Your task to perform on an android device: turn pop-ups off in chrome Image 0: 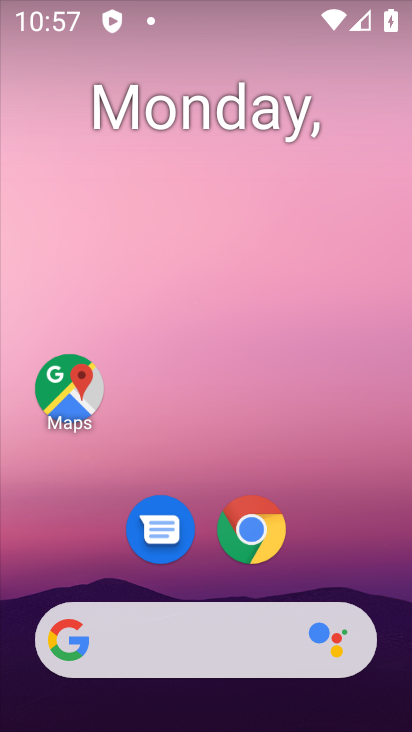
Step 0: click (72, 640)
Your task to perform on an android device: turn pop-ups off in chrome Image 1: 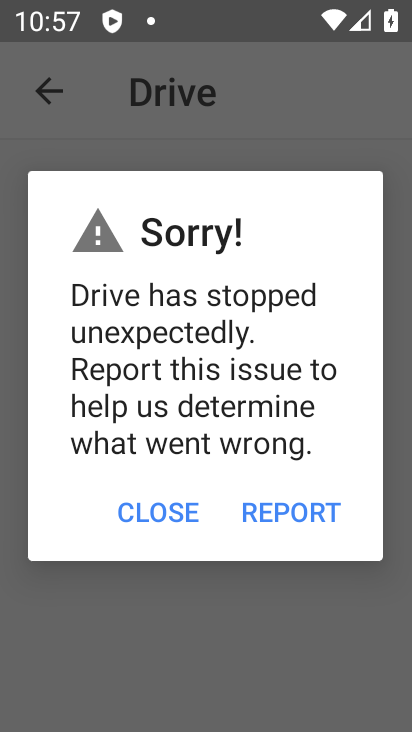
Step 1: click (172, 518)
Your task to perform on an android device: turn pop-ups off in chrome Image 2: 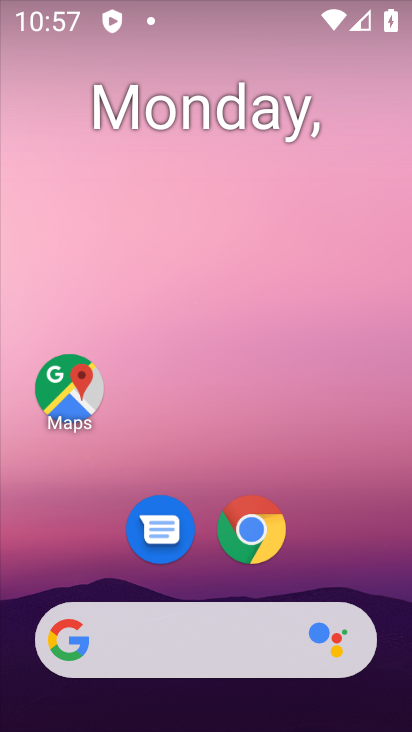
Step 2: click (78, 639)
Your task to perform on an android device: turn pop-ups off in chrome Image 3: 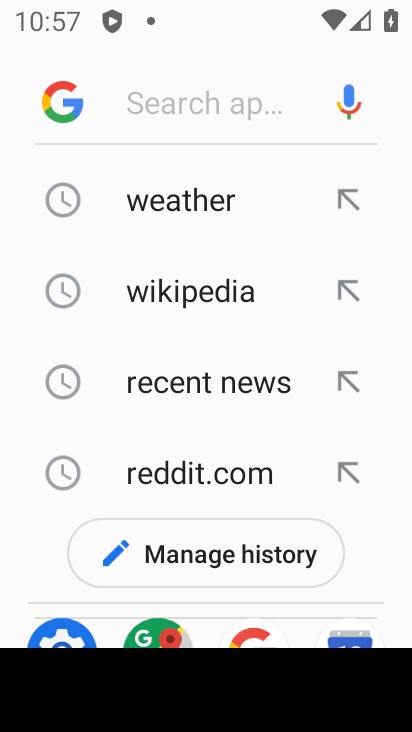
Step 3: click (64, 112)
Your task to perform on an android device: turn pop-ups off in chrome Image 4: 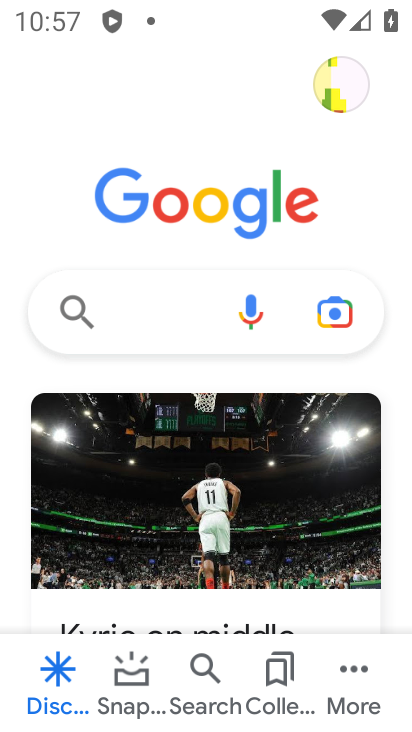
Step 4: click (53, 72)
Your task to perform on an android device: turn pop-ups off in chrome Image 5: 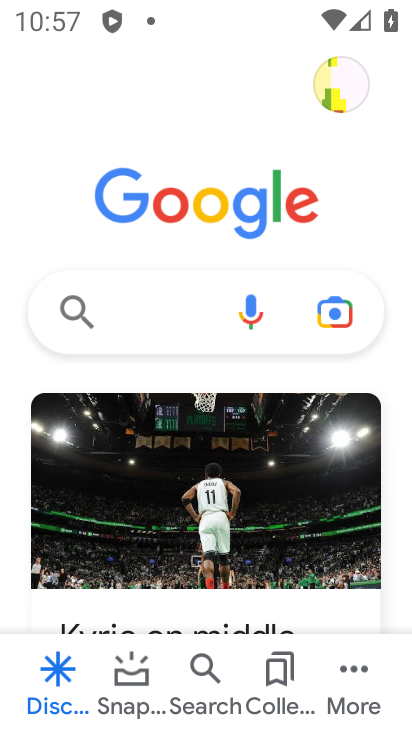
Step 5: click (145, 305)
Your task to perform on an android device: turn pop-ups off in chrome Image 6: 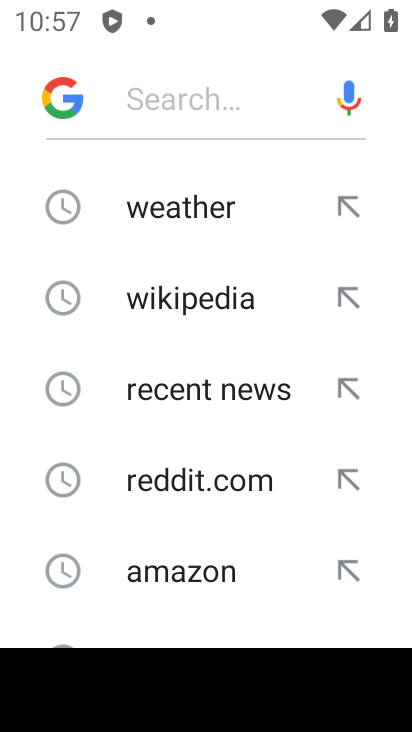
Step 6: press back button
Your task to perform on an android device: turn pop-ups off in chrome Image 7: 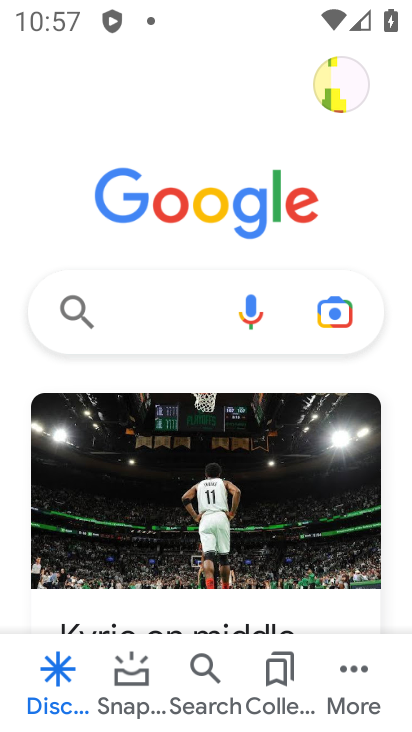
Step 7: drag from (342, 90) to (329, 177)
Your task to perform on an android device: turn pop-ups off in chrome Image 8: 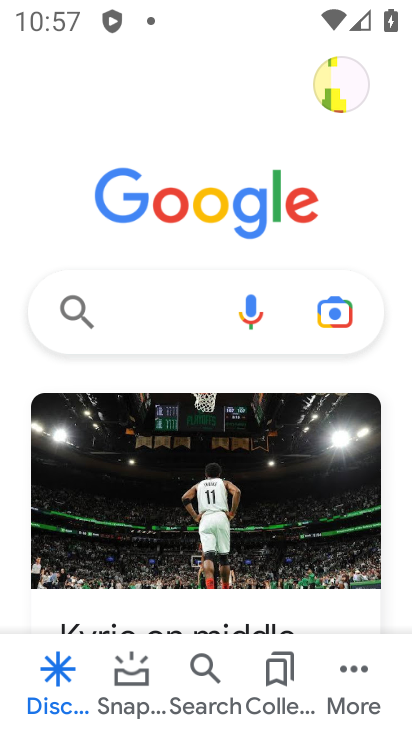
Step 8: click (346, 87)
Your task to perform on an android device: turn pop-ups off in chrome Image 9: 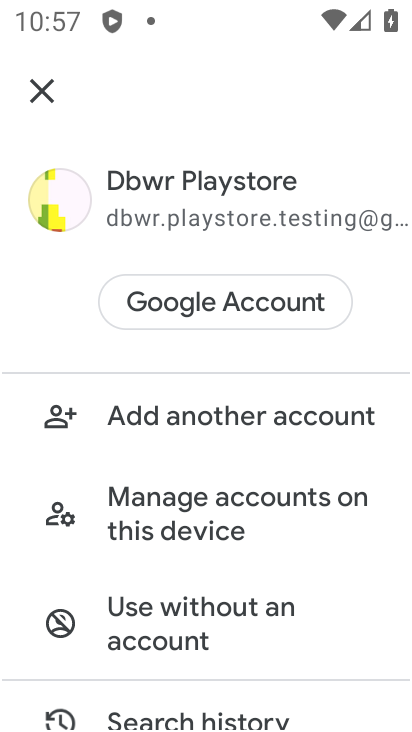
Step 9: click (46, 85)
Your task to perform on an android device: turn pop-ups off in chrome Image 10: 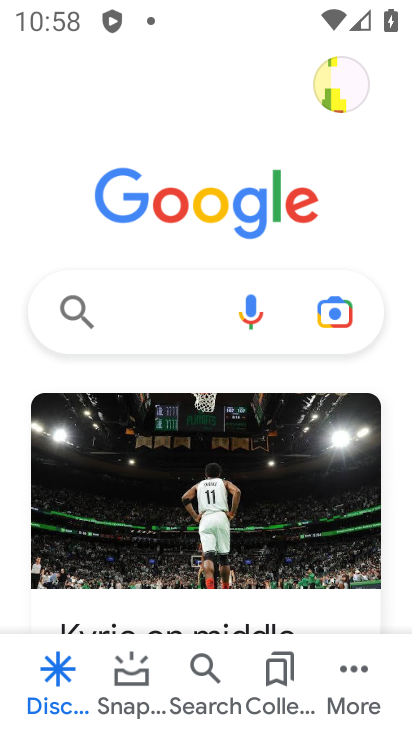
Step 10: press home button
Your task to perform on an android device: turn pop-ups off in chrome Image 11: 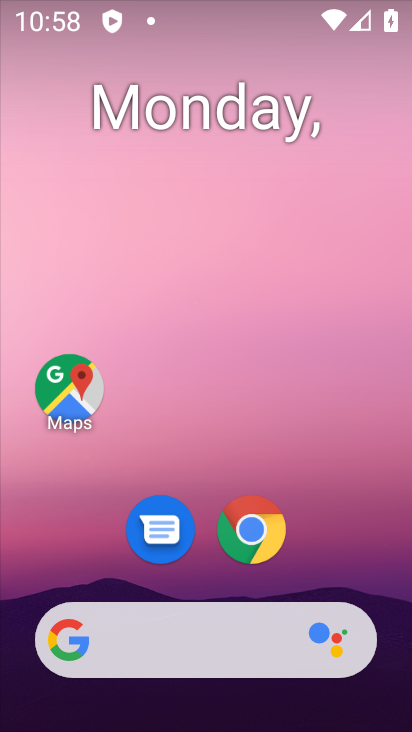
Step 11: click (246, 529)
Your task to perform on an android device: turn pop-ups off in chrome Image 12: 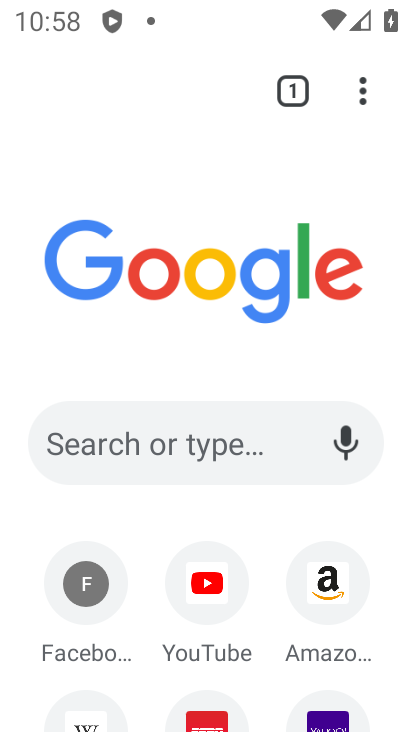
Step 12: drag from (359, 96) to (129, 562)
Your task to perform on an android device: turn pop-ups off in chrome Image 13: 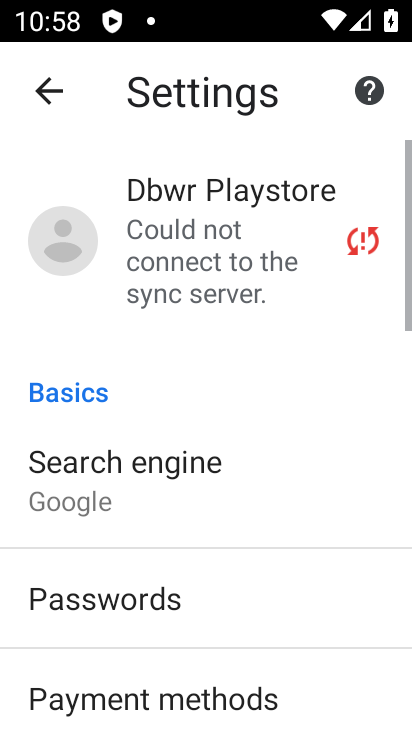
Step 13: drag from (177, 654) to (168, 328)
Your task to perform on an android device: turn pop-ups off in chrome Image 14: 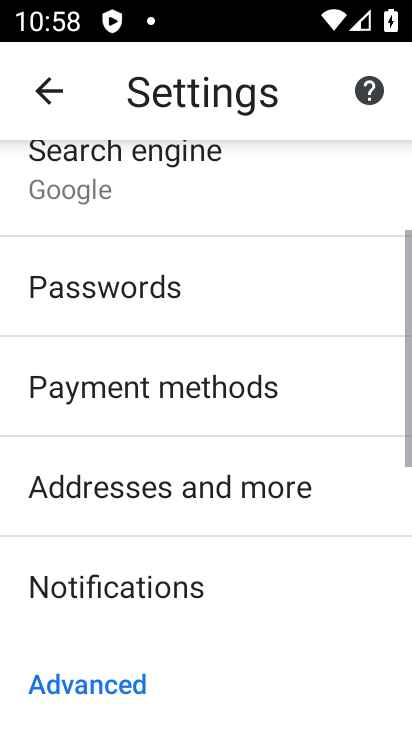
Step 14: drag from (143, 601) to (161, 269)
Your task to perform on an android device: turn pop-ups off in chrome Image 15: 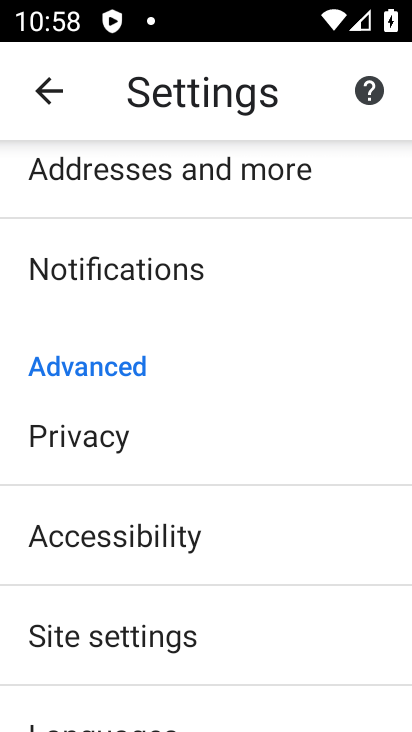
Step 15: drag from (166, 601) to (179, 362)
Your task to perform on an android device: turn pop-ups off in chrome Image 16: 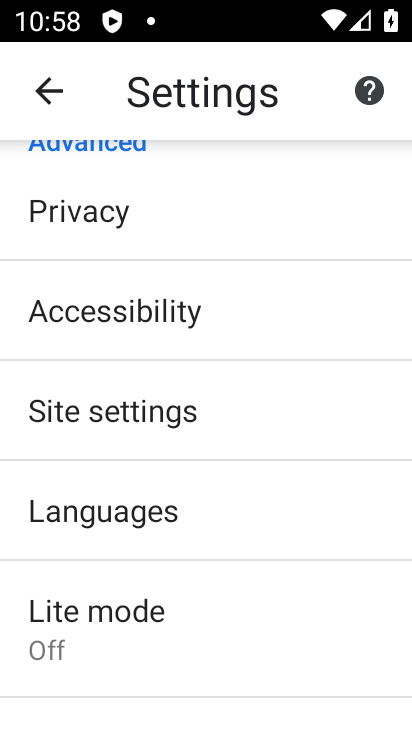
Step 16: click (132, 392)
Your task to perform on an android device: turn pop-ups off in chrome Image 17: 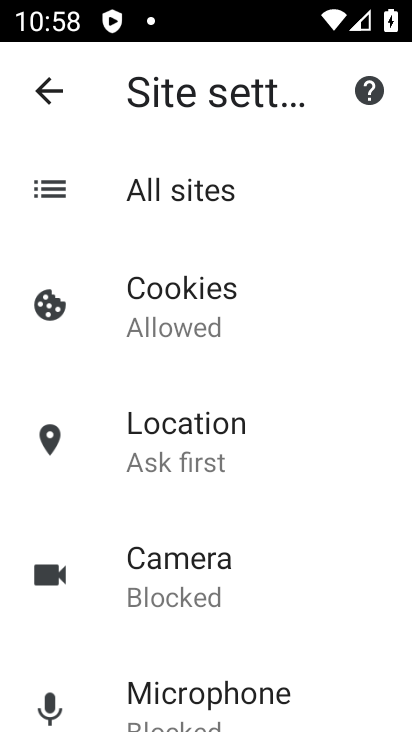
Step 17: drag from (218, 615) to (221, 328)
Your task to perform on an android device: turn pop-ups off in chrome Image 18: 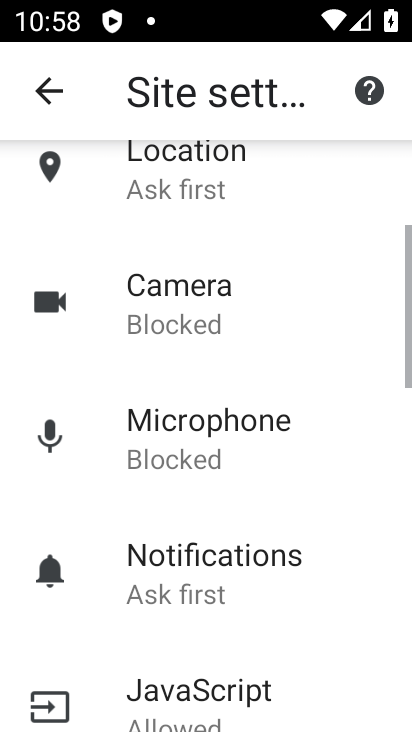
Step 18: drag from (217, 580) to (207, 361)
Your task to perform on an android device: turn pop-ups off in chrome Image 19: 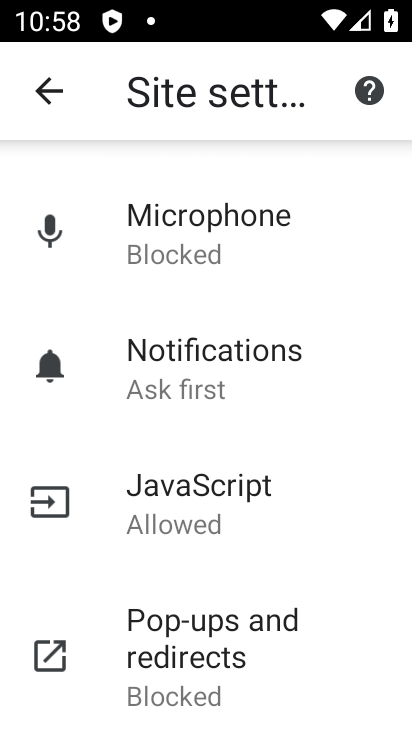
Step 19: click (202, 641)
Your task to perform on an android device: turn pop-ups off in chrome Image 20: 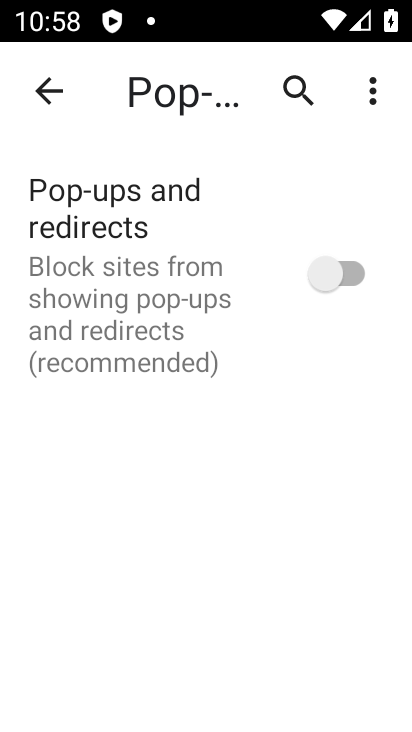
Step 20: task complete